Your task to perform on an android device: delete browsing data in the chrome app Image 0: 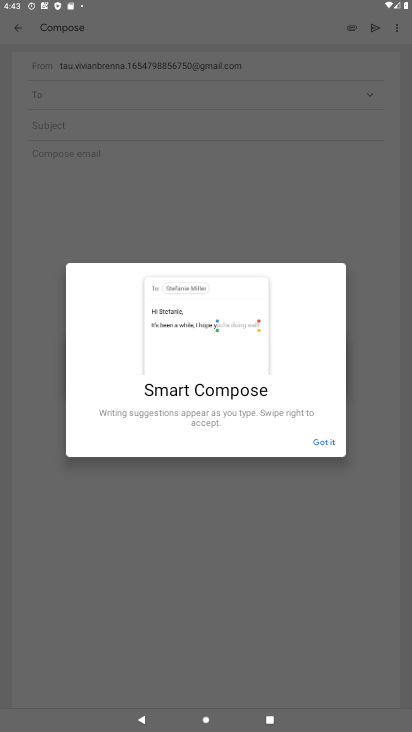
Step 0: press home button
Your task to perform on an android device: delete browsing data in the chrome app Image 1: 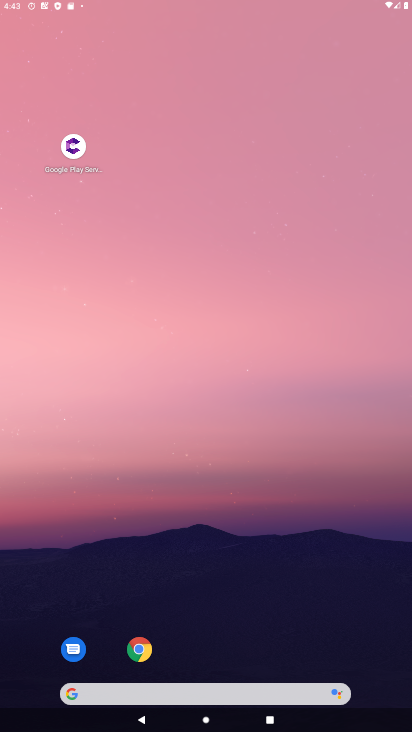
Step 1: drag from (242, 534) to (199, 16)
Your task to perform on an android device: delete browsing data in the chrome app Image 2: 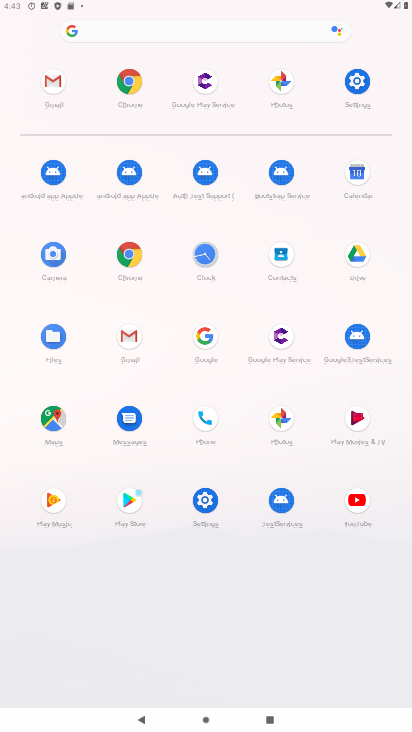
Step 2: click (127, 253)
Your task to perform on an android device: delete browsing data in the chrome app Image 3: 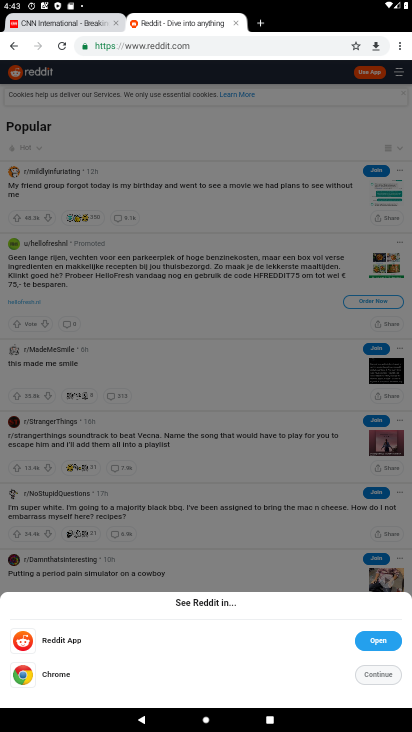
Step 3: click (401, 44)
Your task to perform on an android device: delete browsing data in the chrome app Image 4: 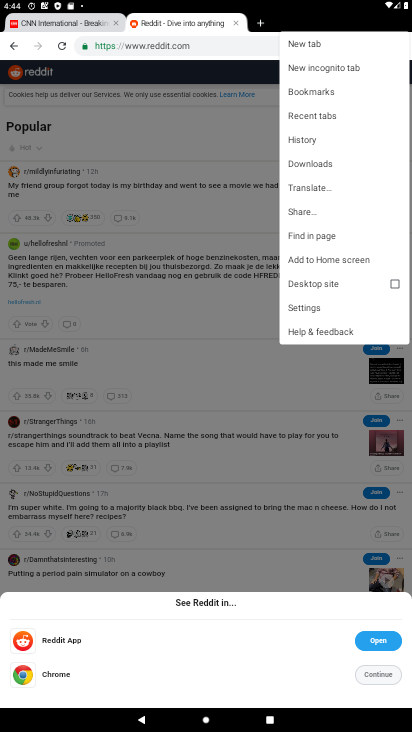
Step 4: click (330, 140)
Your task to perform on an android device: delete browsing data in the chrome app Image 5: 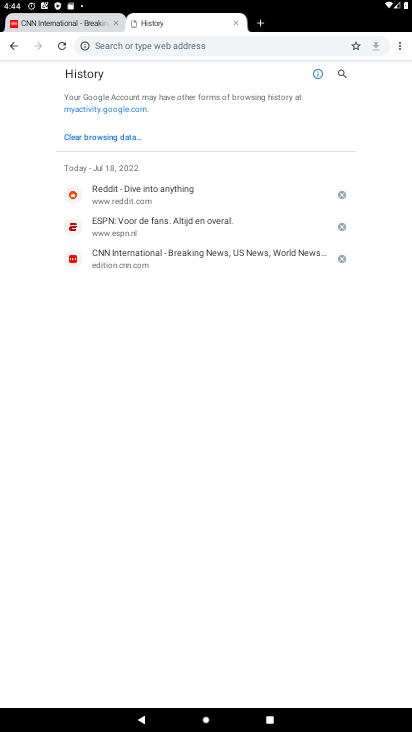
Step 5: click (106, 139)
Your task to perform on an android device: delete browsing data in the chrome app Image 6: 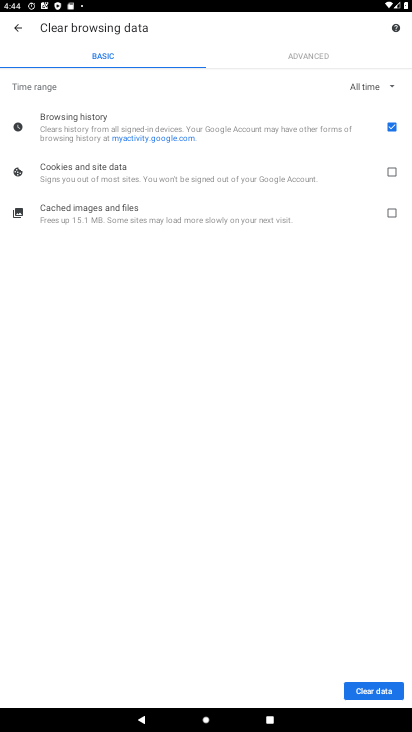
Step 6: click (386, 172)
Your task to perform on an android device: delete browsing data in the chrome app Image 7: 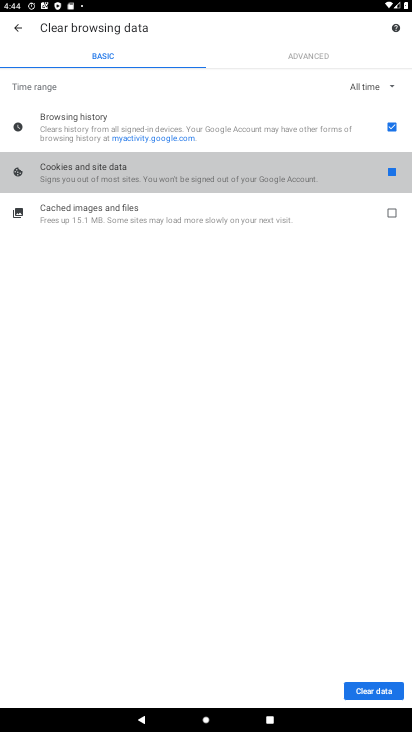
Step 7: click (386, 229)
Your task to perform on an android device: delete browsing data in the chrome app Image 8: 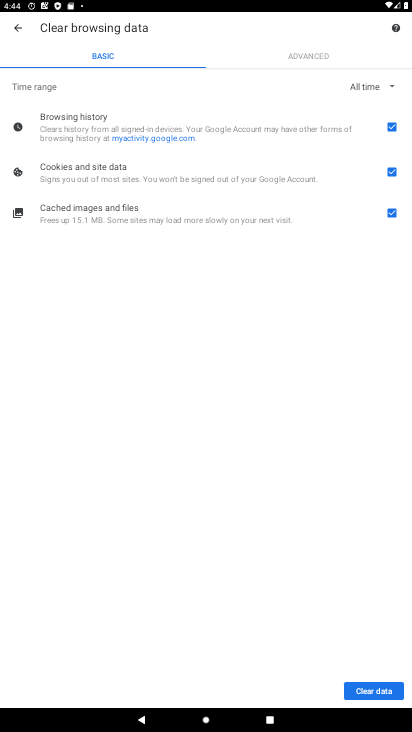
Step 8: click (371, 694)
Your task to perform on an android device: delete browsing data in the chrome app Image 9: 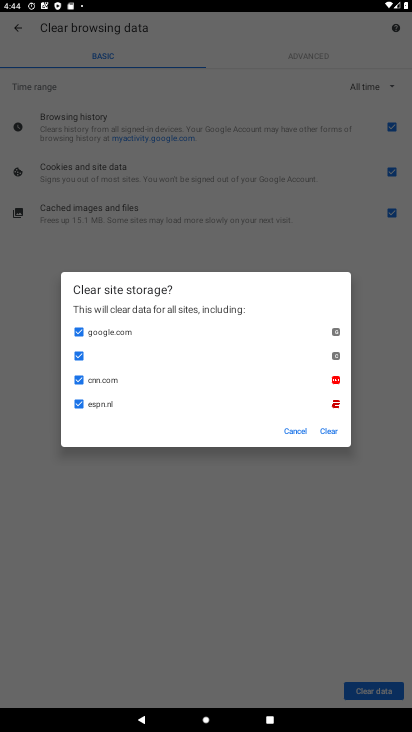
Step 9: click (322, 428)
Your task to perform on an android device: delete browsing data in the chrome app Image 10: 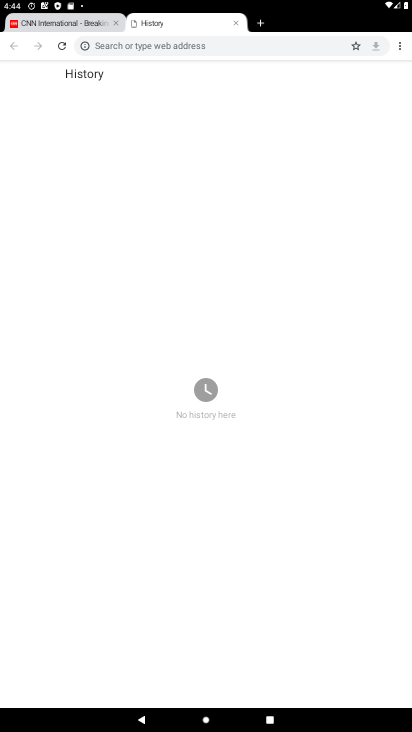
Step 10: task complete